Your task to perform on an android device: Check the weather Image 0: 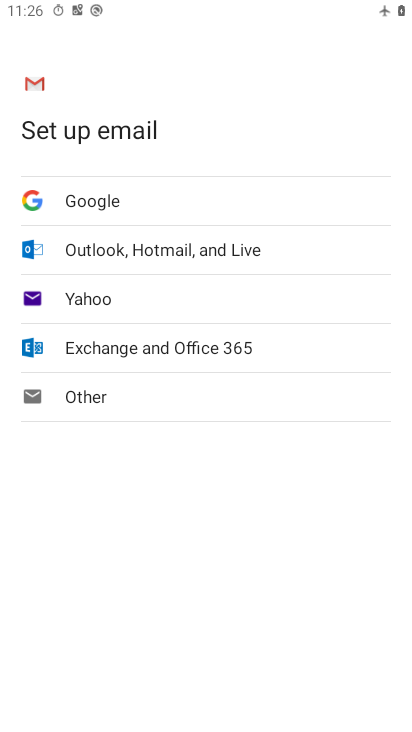
Step 0: press home button
Your task to perform on an android device: Check the weather Image 1: 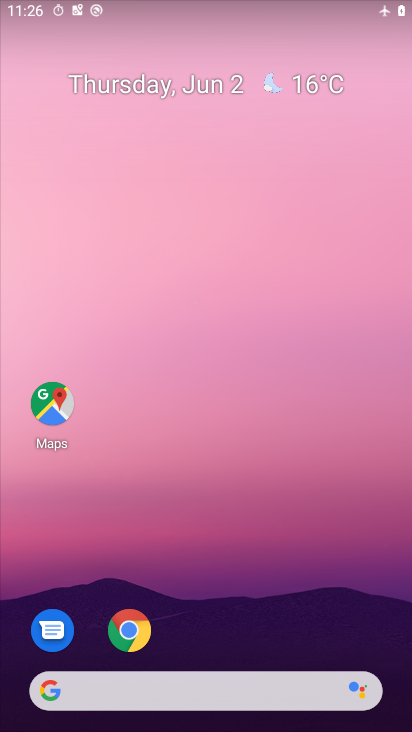
Step 1: click (278, 85)
Your task to perform on an android device: Check the weather Image 2: 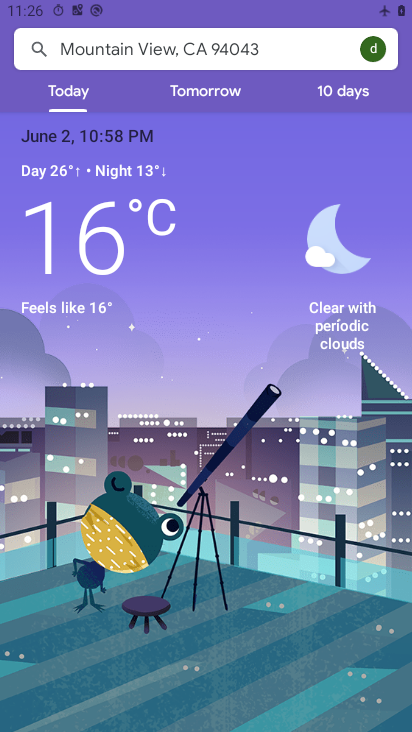
Step 2: task complete